Your task to perform on an android device: Add apple airpods to the cart on costco Image 0: 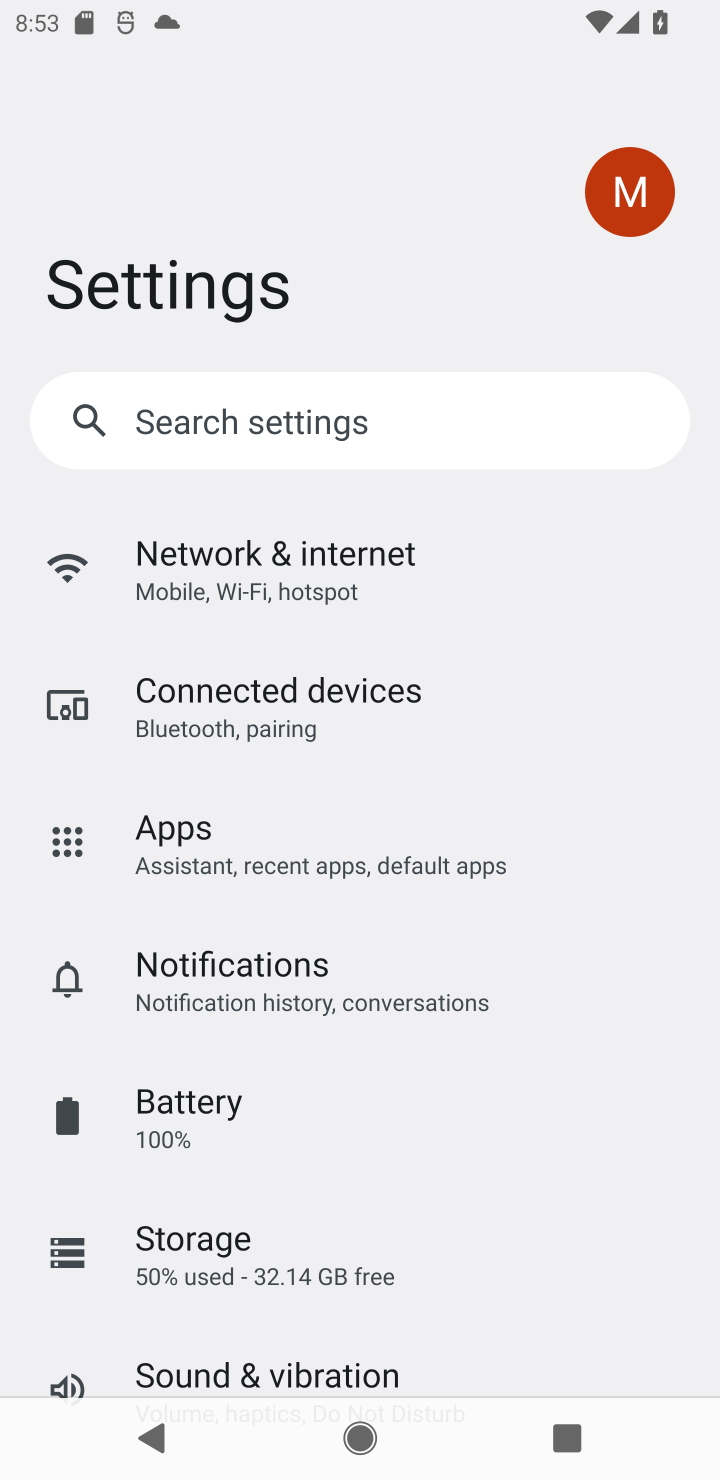
Step 0: press home button
Your task to perform on an android device: Add apple airpods to the cart on costco Image 1: 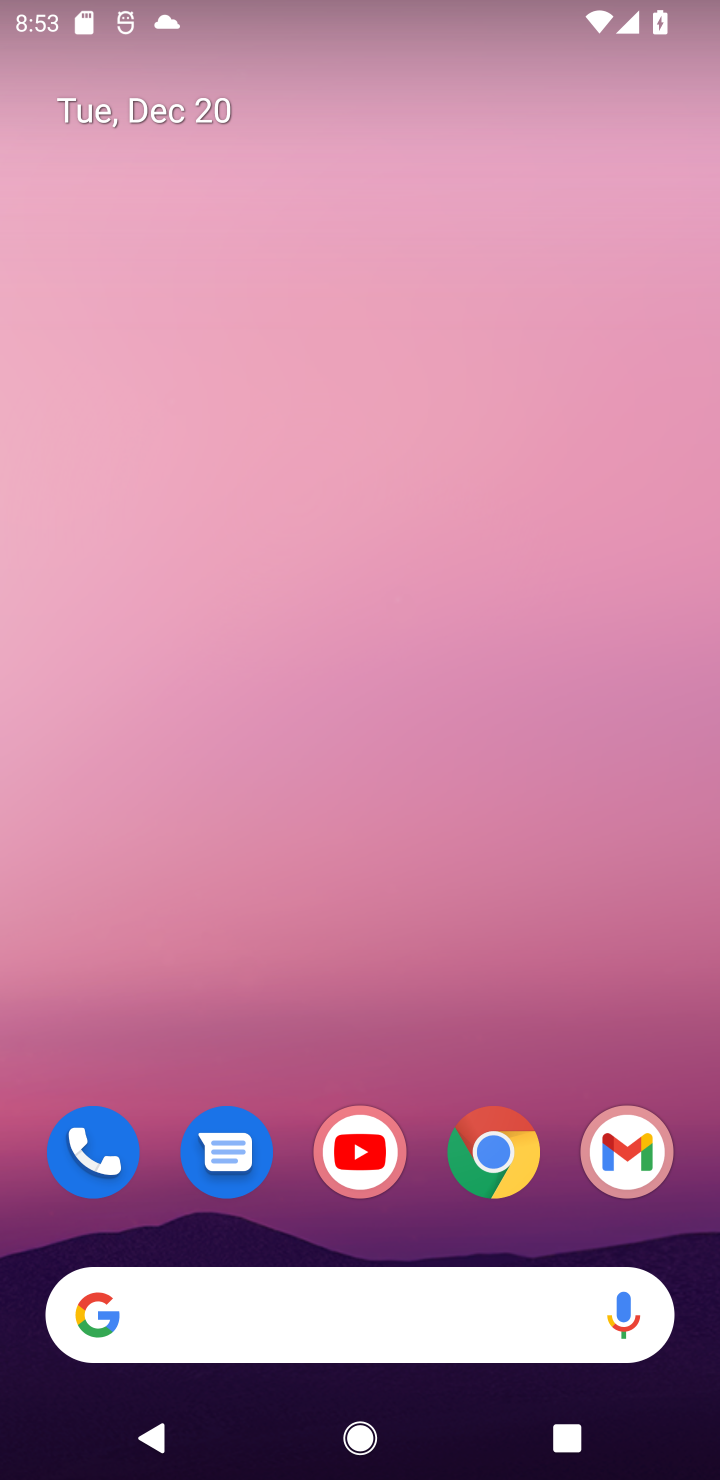
Step 1: click (460, 1145)
Your task to perform on an android device: Add apple airpods to the cart on costco Image 2: 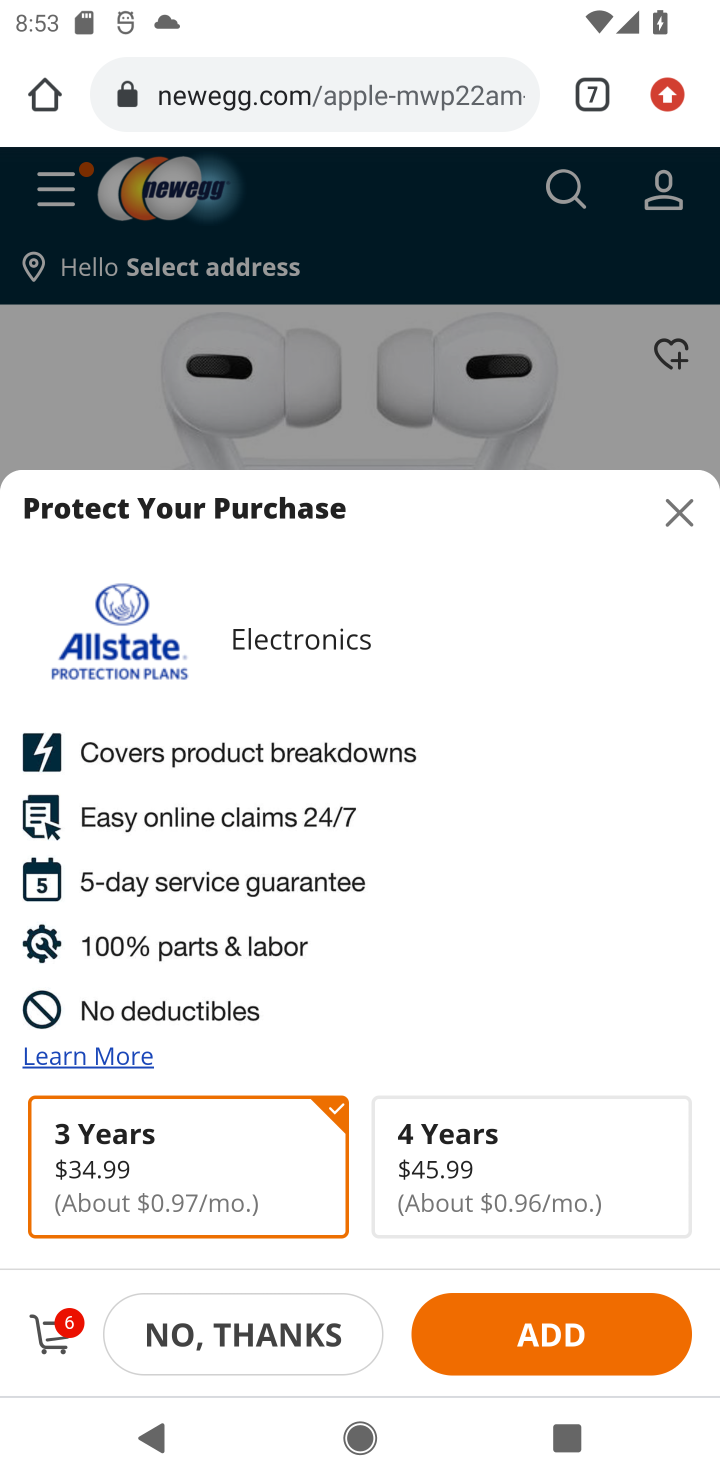
Step 2: click (588, 91)
Your task to perform on an android device: Add apple airpods to the cart on costco Image 3: 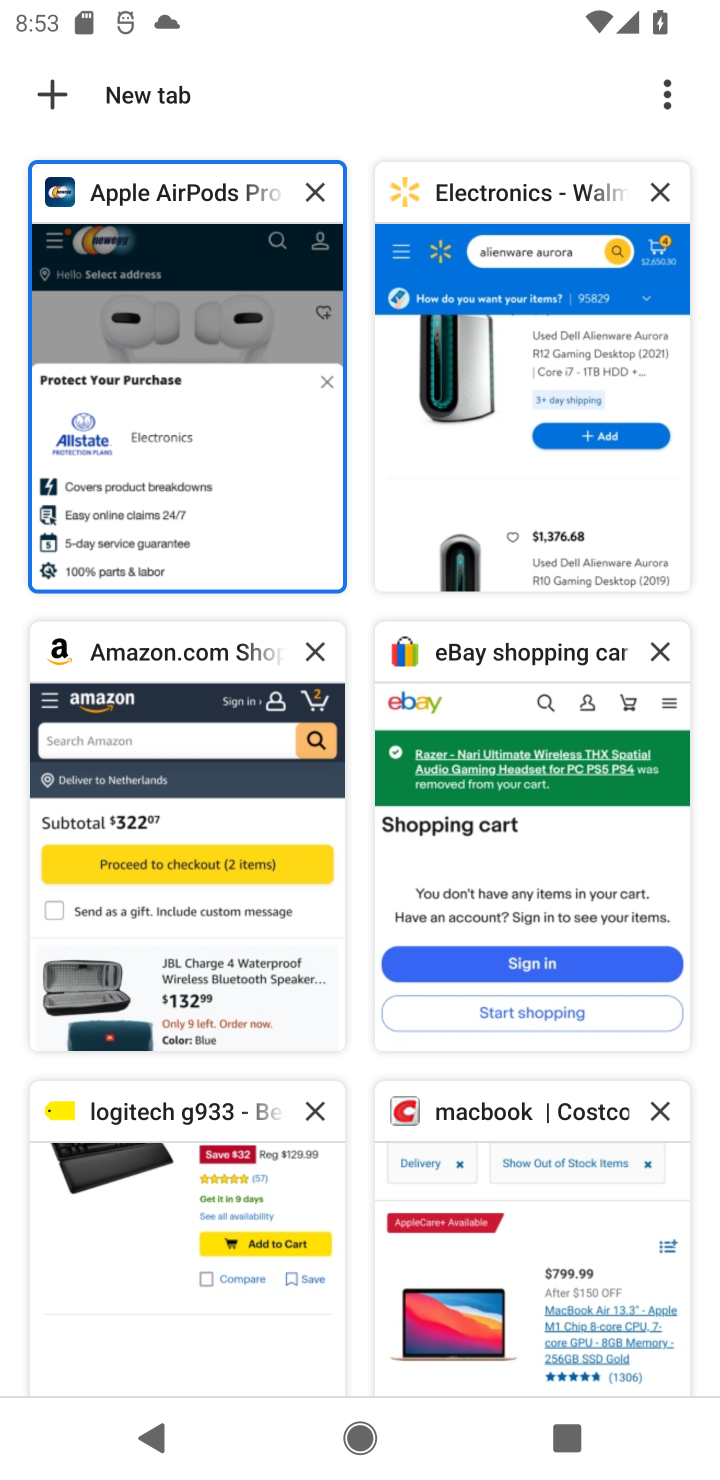
Step 3: click (432, 1146)
Your task to perform on an android device: Add apple airpods to the cart on costco Image 4: 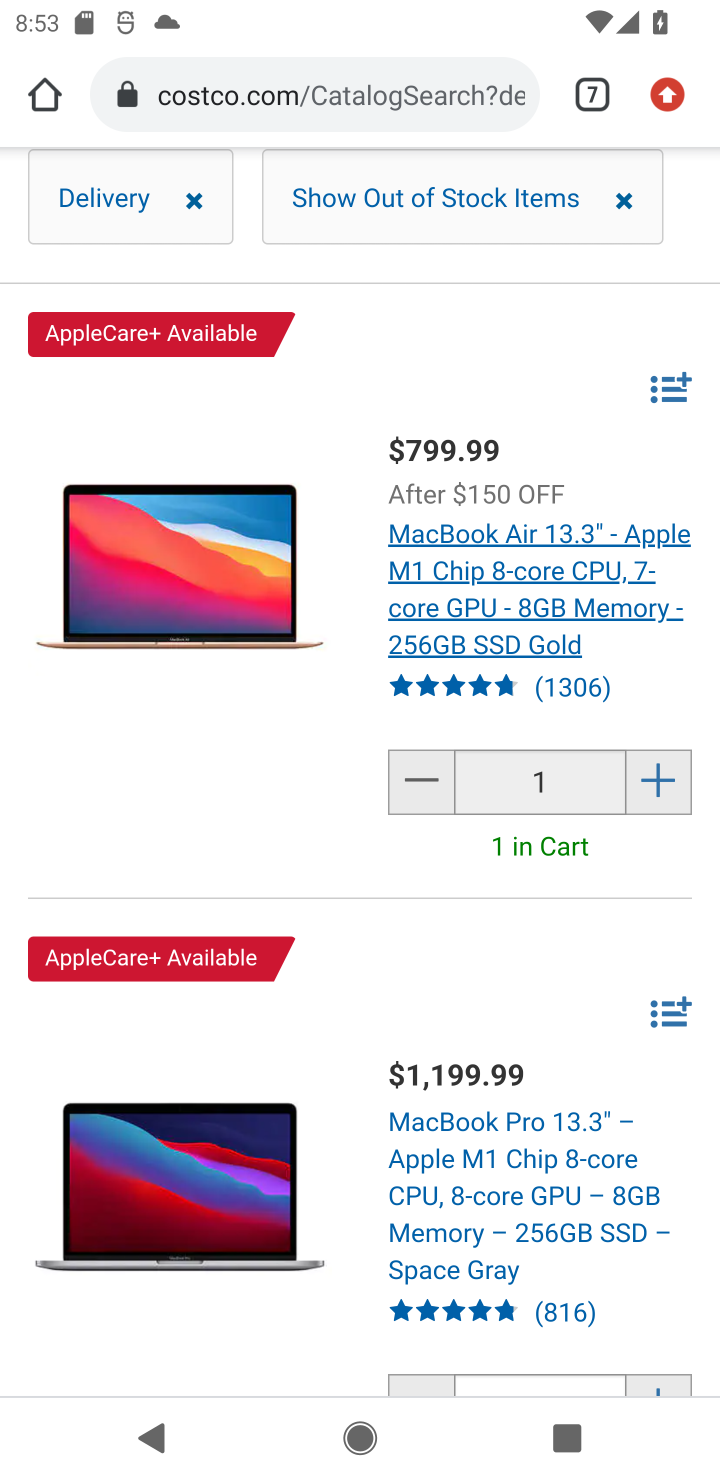
Step 4: drag from (504, 331) to (438, 1455)
Your task to perform on an android device: Add apple airpods to the cart on costco Image 5: 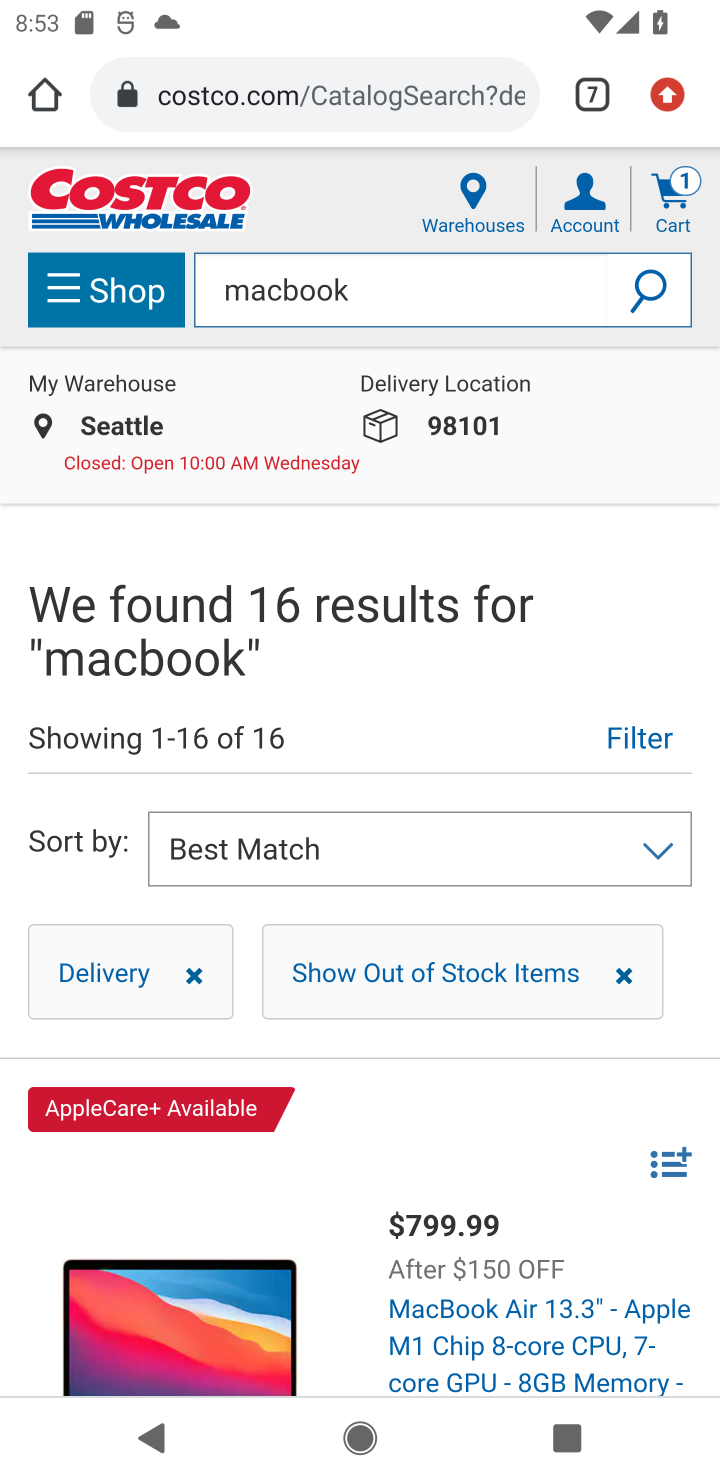
Step 5: click (453, 260)
Your task to perform on an android device: Add apple airpods to the cart on costco Image 6: 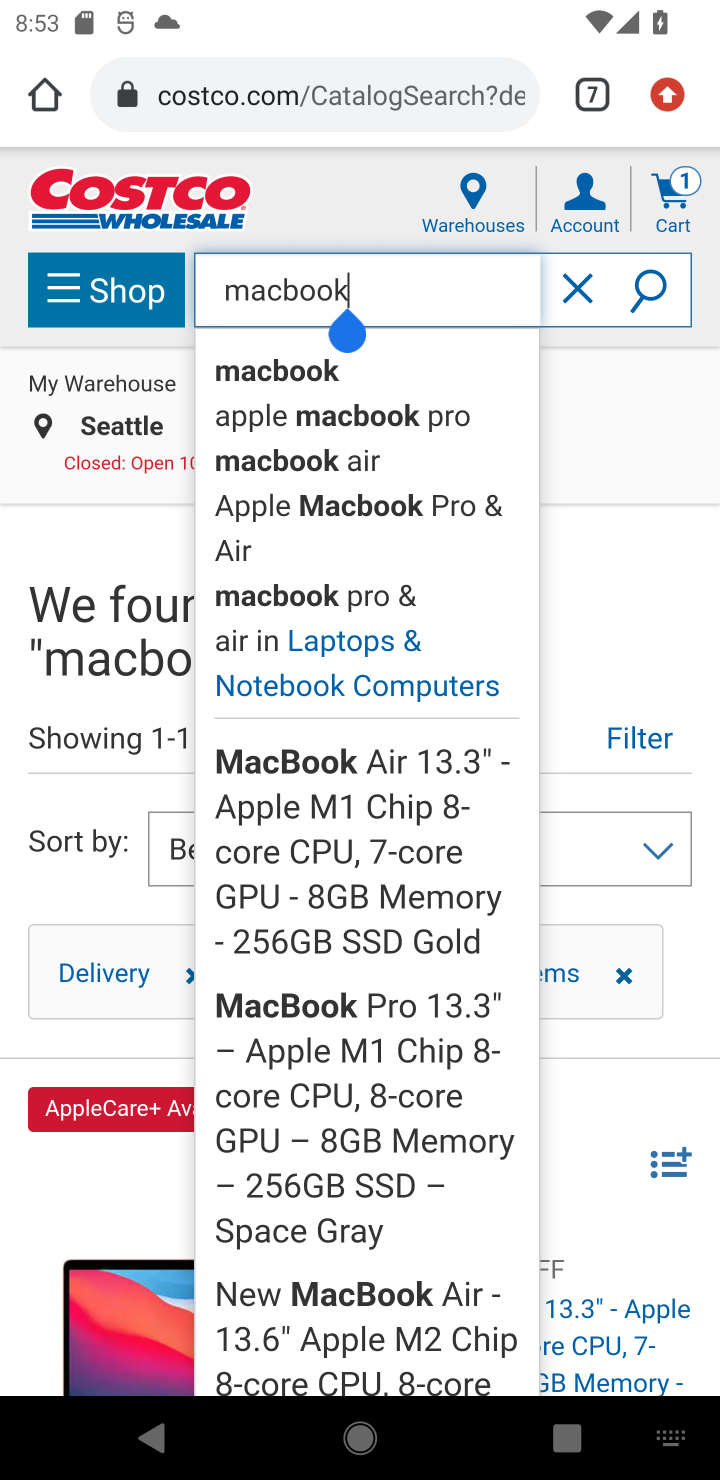
Step 6: click (592, 282)
Your task to perform on an android device: Add apple airpods to the cart on costco Image 7: 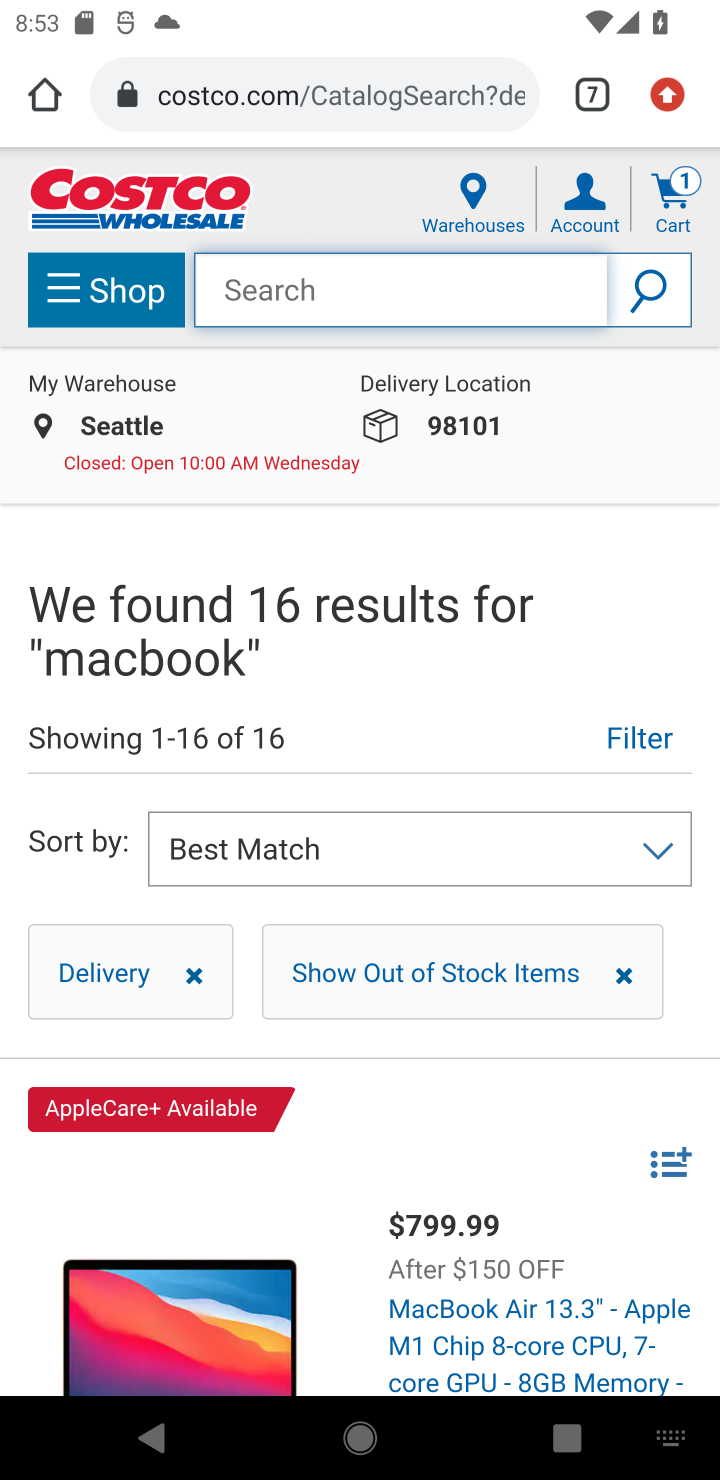
Step 7: type "apple airpods"
Your task to perform on an android device: Add apple airpods to the cart on costco Image 8: 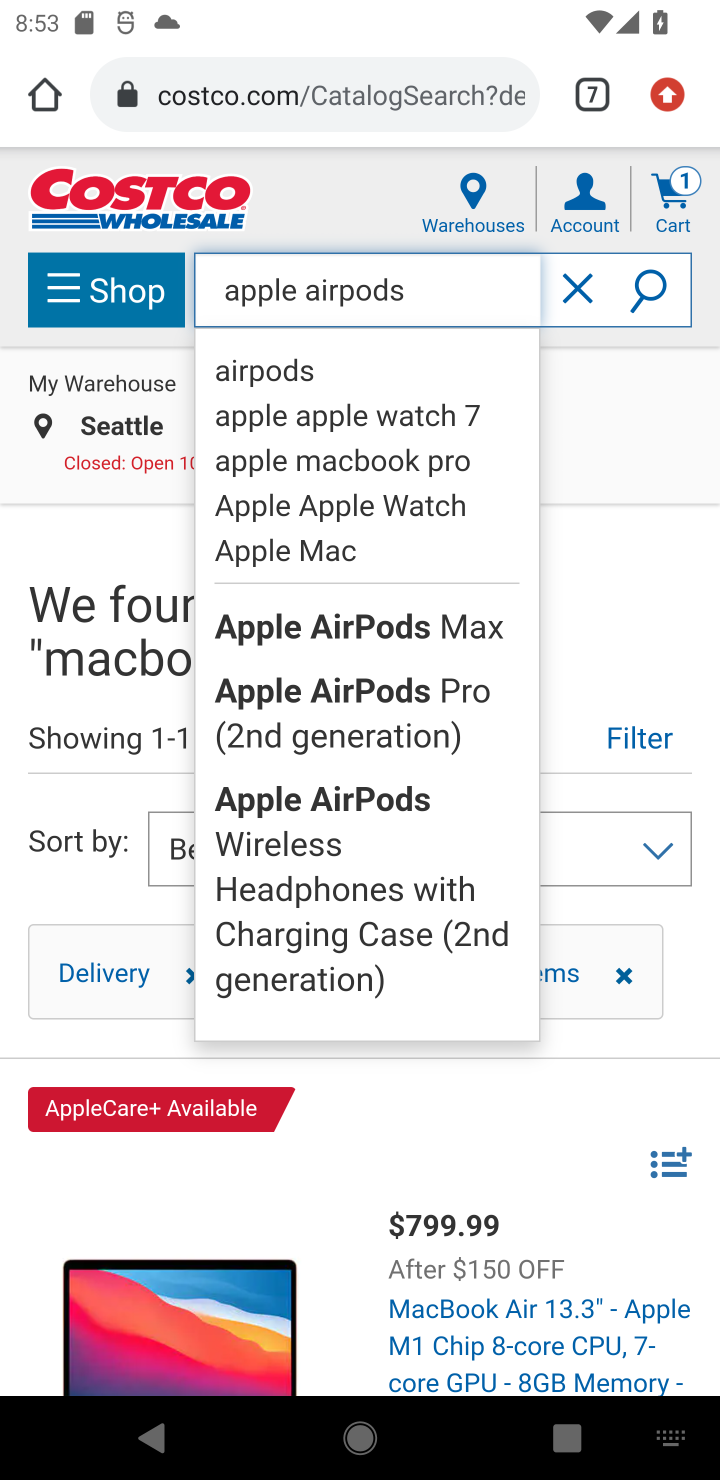
Step 8: click (654, 286)
Your task to perform on an android device: Add apple airpods to the cart on costco Image 9: 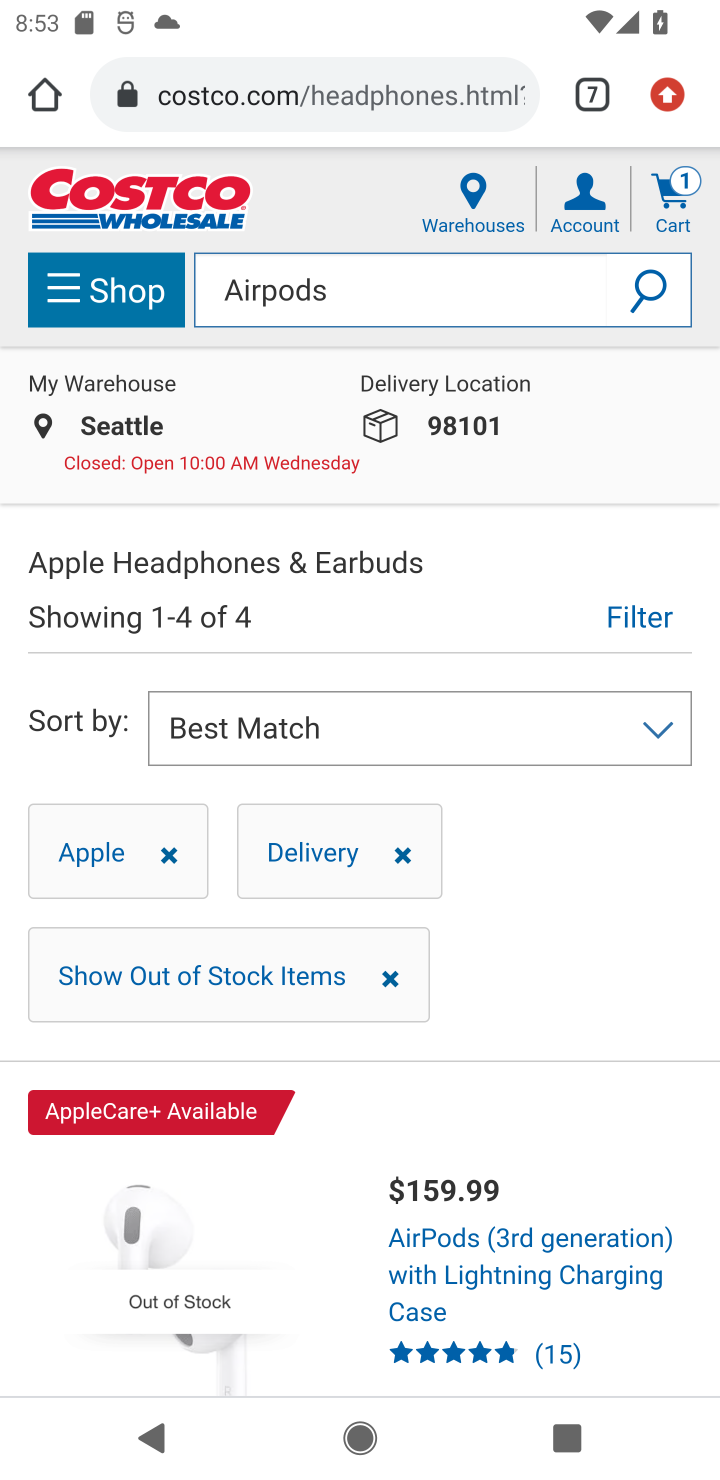
Step 9: drag from (547, 1117) to (714, 706)
Your task to perform on an android device: Add apple airpods to the cart on costco Image 10: 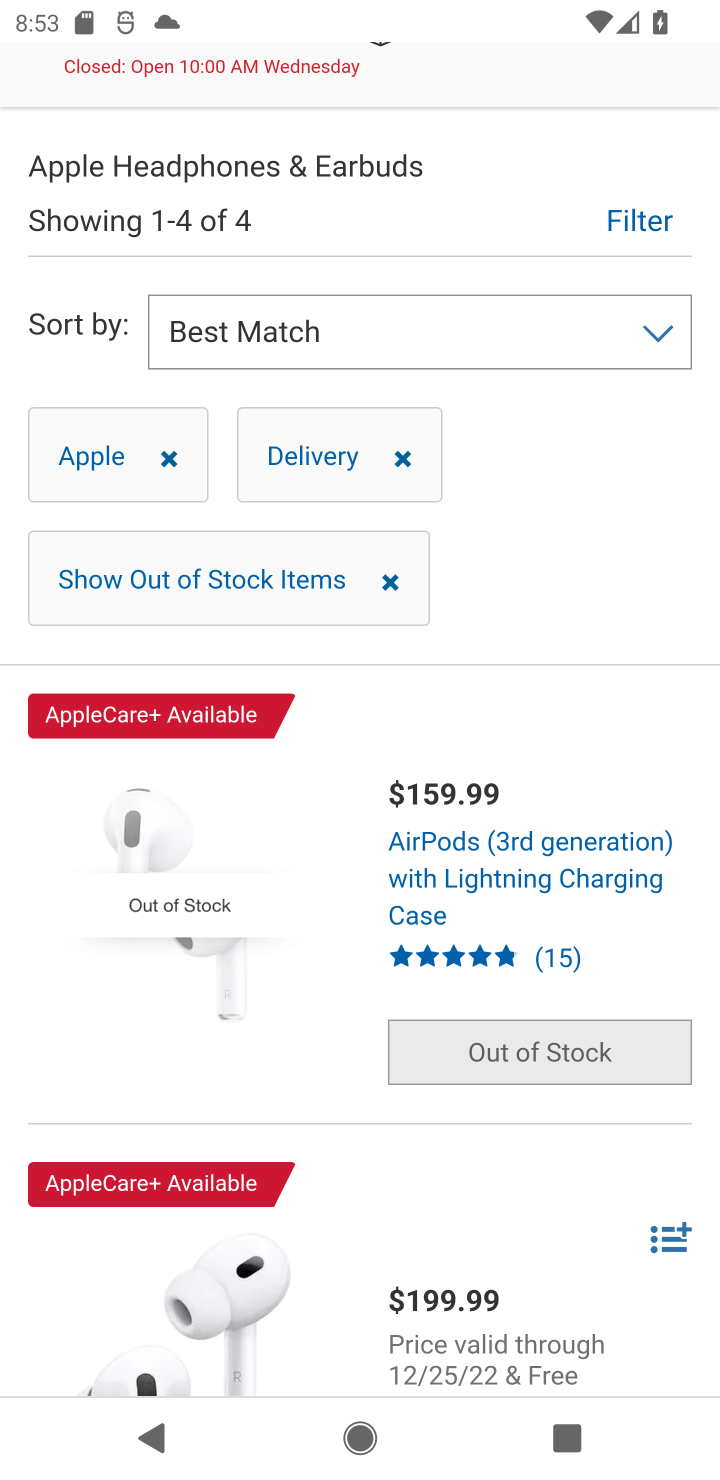
Step 10: drag from (575, 979) to (693, 907)
Your task to perform on an android device: Add apple airpods to the cart on costco Image 11: 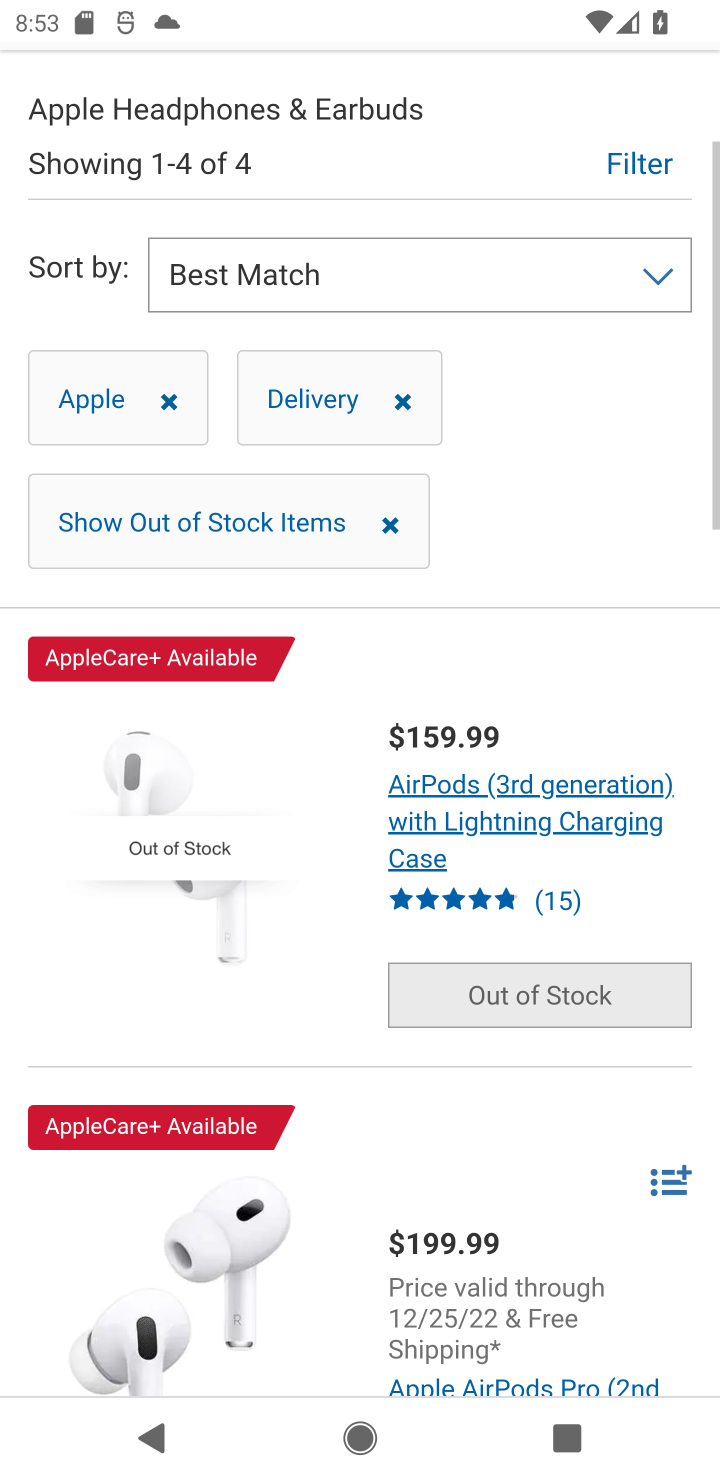
Step 11: click (536, 1020)
Your task to perform on an android device: Add apple airpods to the cart on costco Image 12: 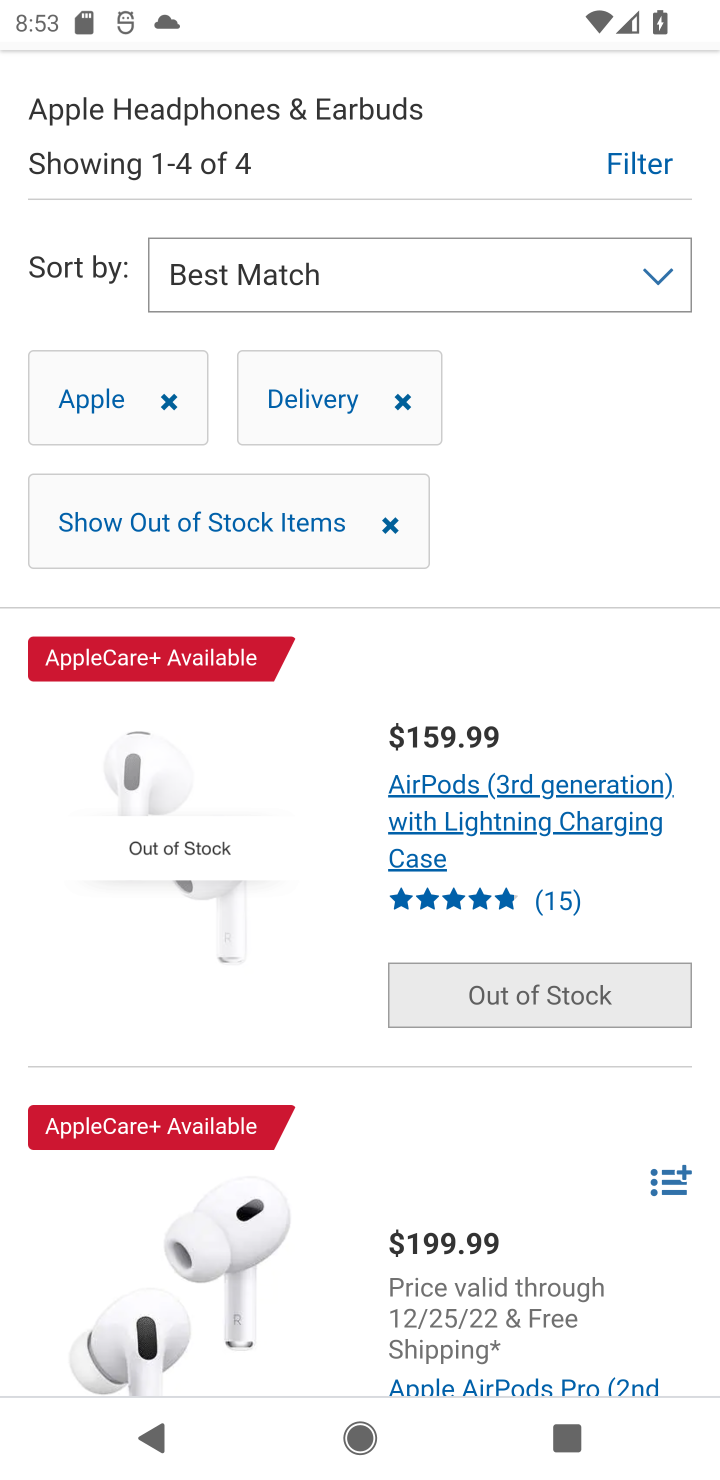
Step 12: task complete